Your task to perform on an android device: Search for Mexican restaurants on Maps Image 0: 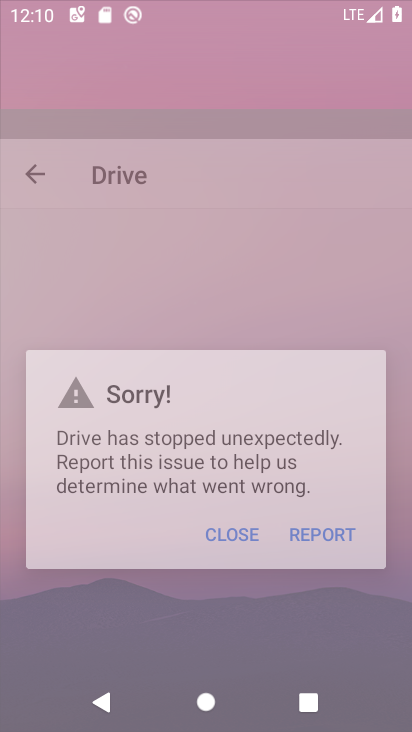
Step 0: press home button
Your task to perform on an android device: Search for Mexican restaurants on Maps Image 1: 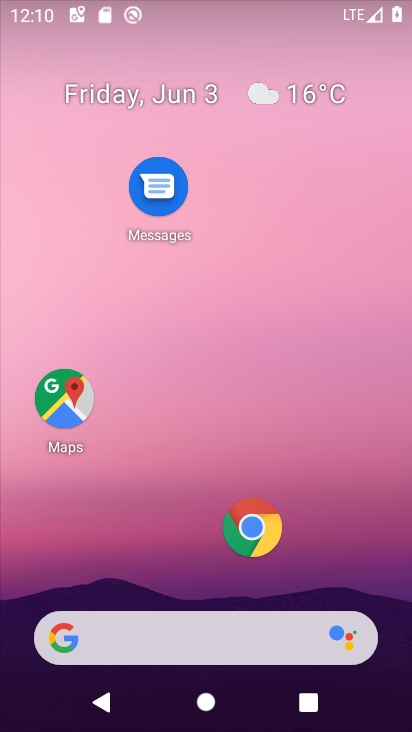
Step 1: press home button
Your task to perform on an android device: Search for Mexican restaurants on Maps Image 2: 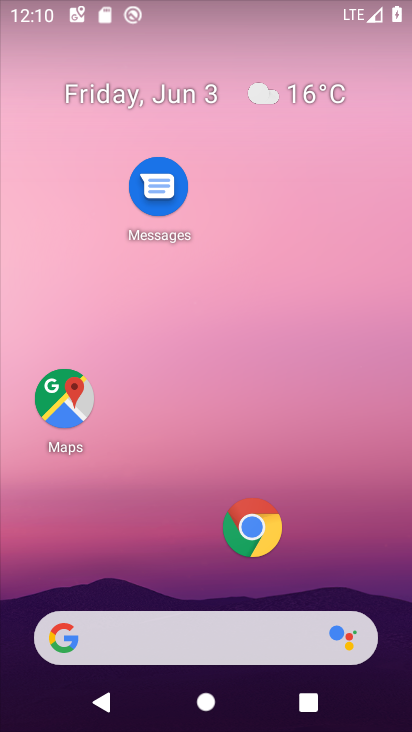
Step 2: drag from (287, 15) to (290, 287)
Your task to perform on an android device: Search for Mexican restaurants on Maps Image 3: 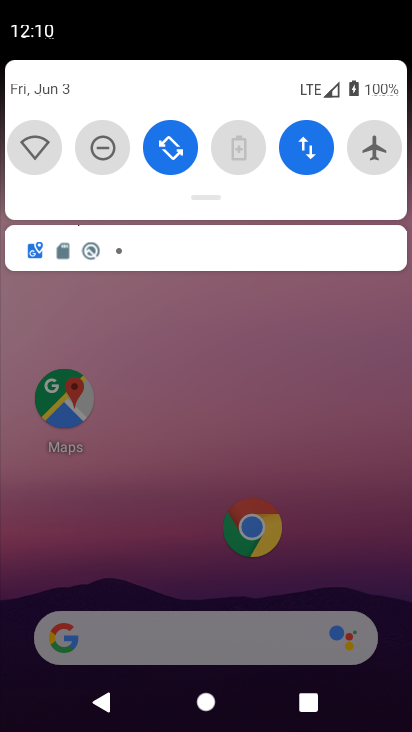
Step 3: drag from (290, 208) to (295, 0)
Your task to perform on an android device: Search for Mexican restaurants on Maps Image 4: 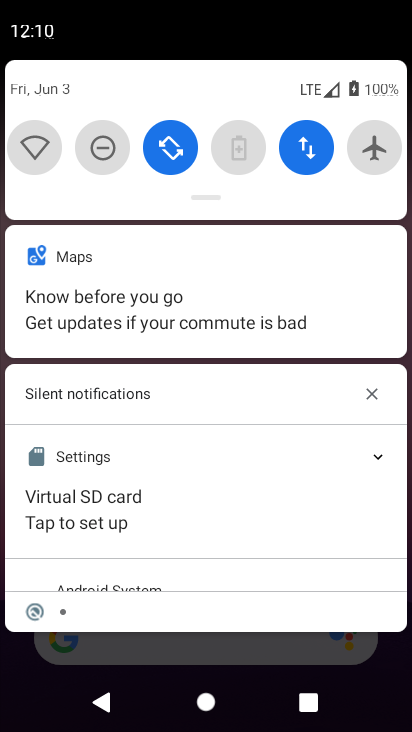
Step 4: press home button
Your task to perform on an android device: Search for Mexican restaurants on Maps Image 5: 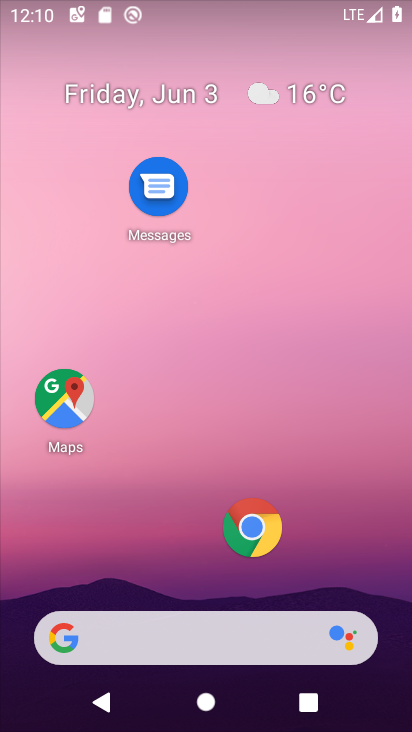
Step 5: click (65, 392)
Your task to perform on an android device: Search for Mexican restaurants on Maps Image 6: 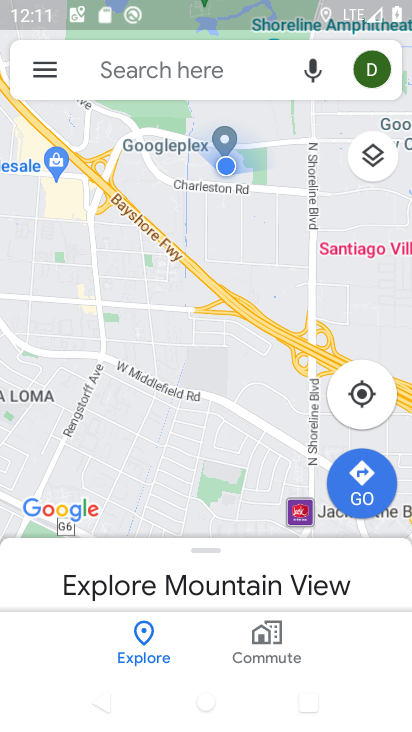
Step 6: click (149, 58)
Your task to perform on an android device: Search for Mexican restaurants on Maps Image 7: 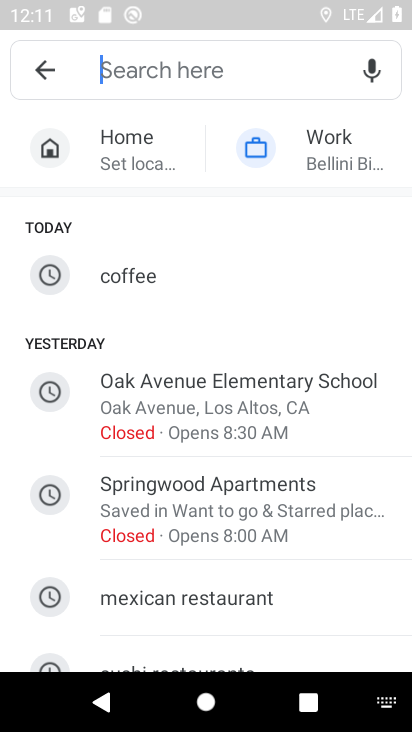
Step 7: click (181, 595)
Your task to perform on an android device: Search for Mexican restaurants on Maps Image 8: 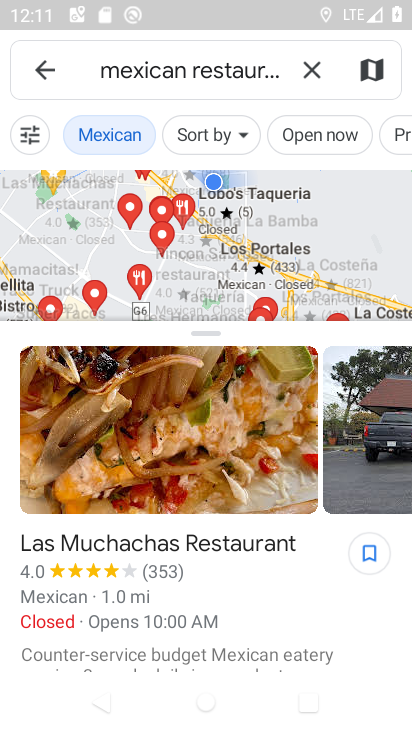
Step 8: task complete